Your task to perform on an android device: change the clock style Image 0: 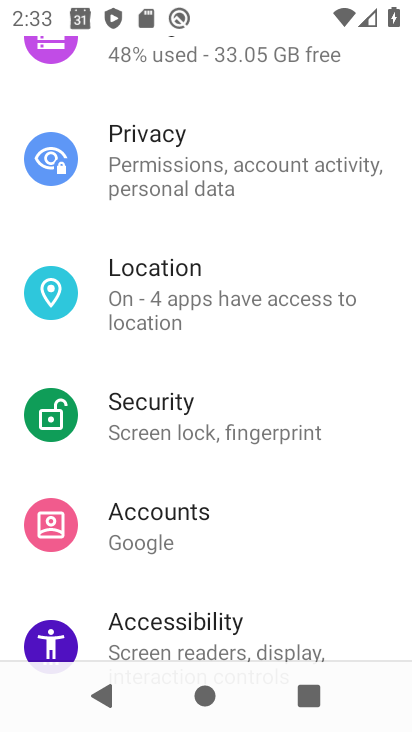
Step 0: press home button
Your task to perform on an android device: change the clock style Image 1: 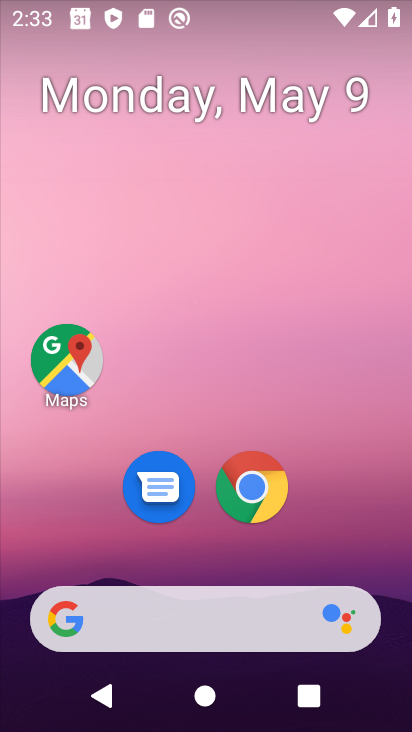
Step 1: drag from (323, 558) to (334, 71)
Your task to perform on an android device: change the clock style Image 2: 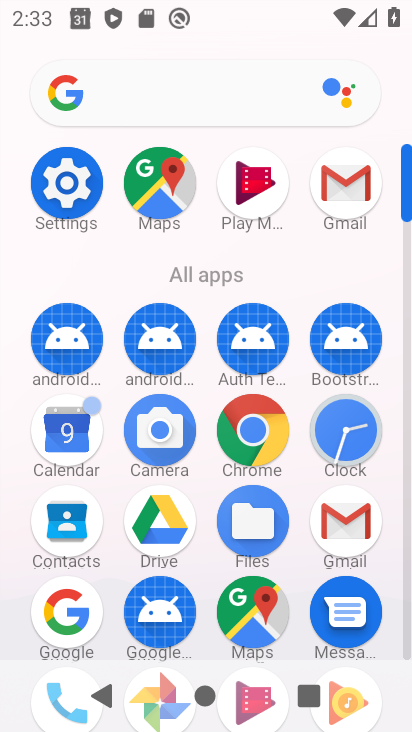
Step 2: click (331, 431)
Your task to perform on an android device: change the clock style Image 3: 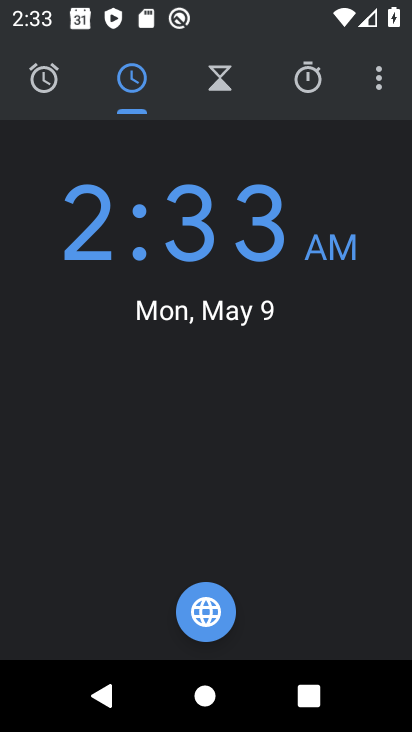
Step 3: click (387, 77)
Your task to perform on an android device: change the clock style Image 4: 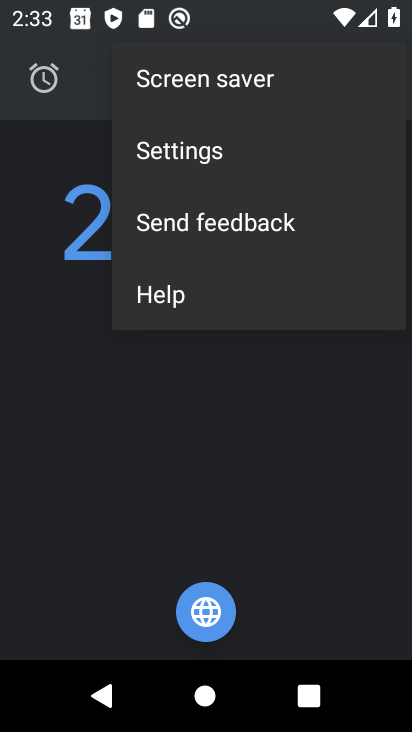
Step 4: click (253, 146)
Your task to perform on an android device: change the clock style Image 5: 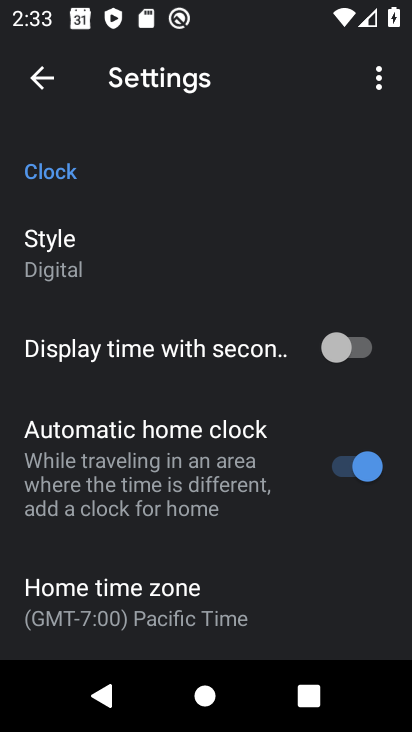
Step 5: click (102, 241)
Your task to perform on an android device: change the clock style Image 6: 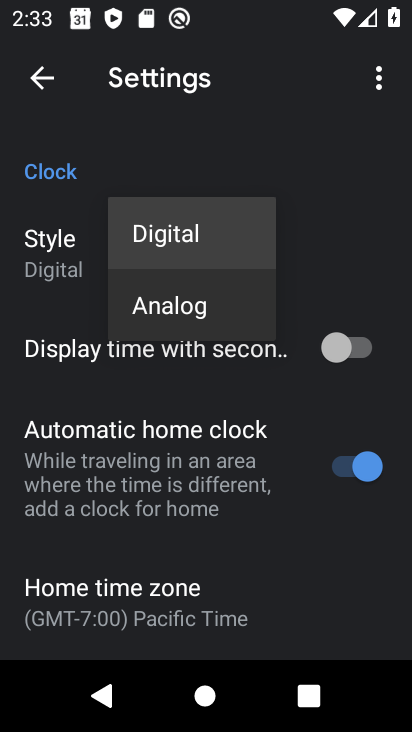
Step 6: click (161, 296)
Your task to perform on an android device: change the clock style Image 7: 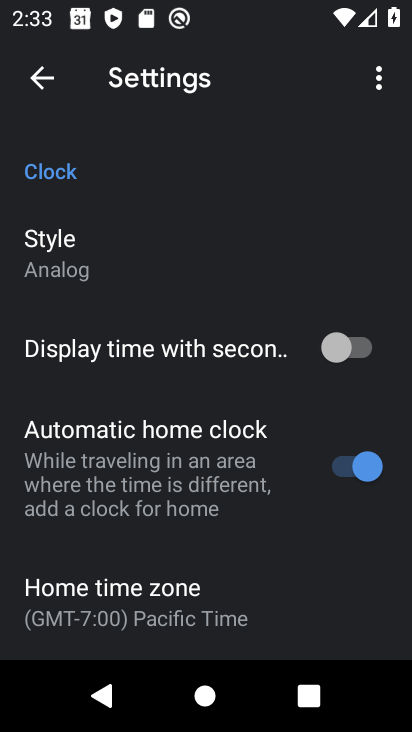
Step 7: task complete